Your task to perform on an android device: turn on sleep mode Image 0: 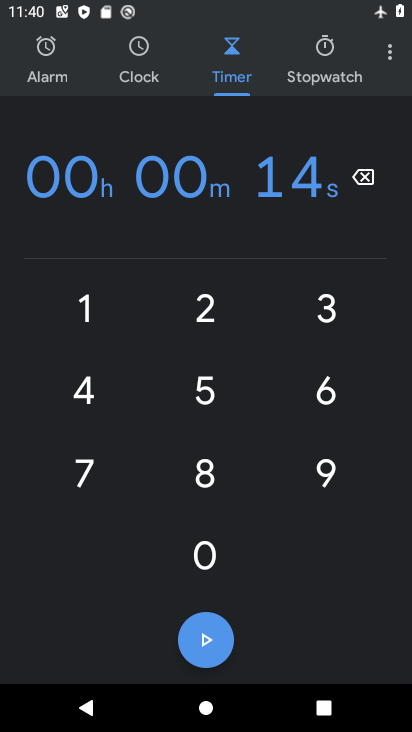
Step 0: press home button
Your task to perform on an android device: turn on sleep mode Image 1: 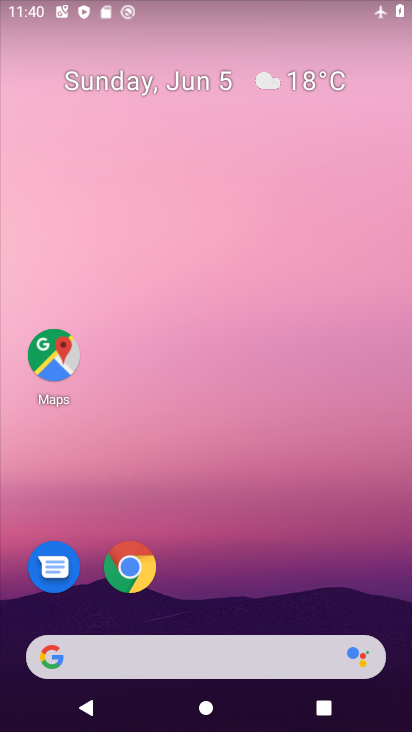
Step 1: drag from (245, 555) to (229, 18)
Your task to perform on an android device: turn on sleep mode Image 2: 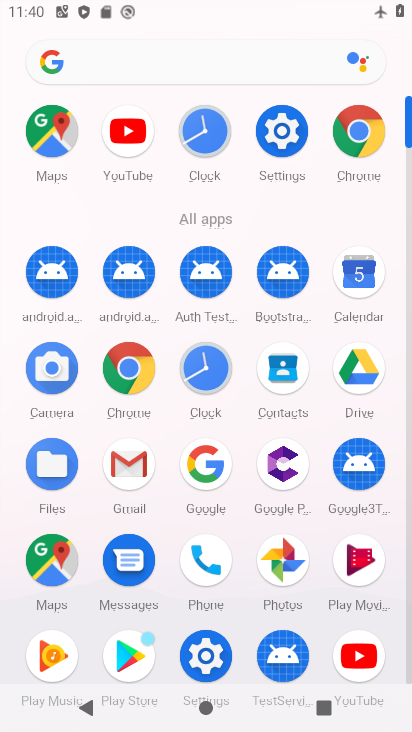
Step 2: click (284, 122)
Your task to perform on an android device: turn on sleep mode Image 3: 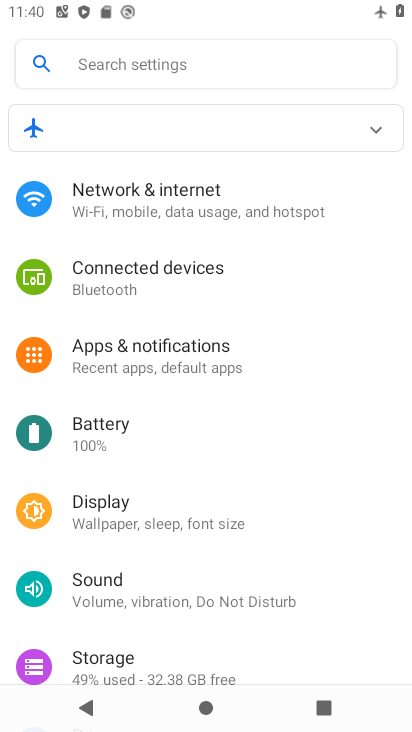
Step 3: click (233, 517)
Your task to perform on an android device: turn on sleep mode Image 4: 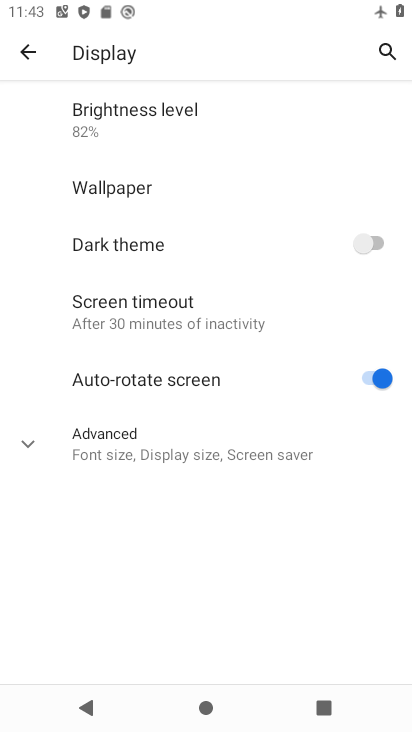
Step 4: task complete